Your task to perform on an android device: check battery use Image 0: 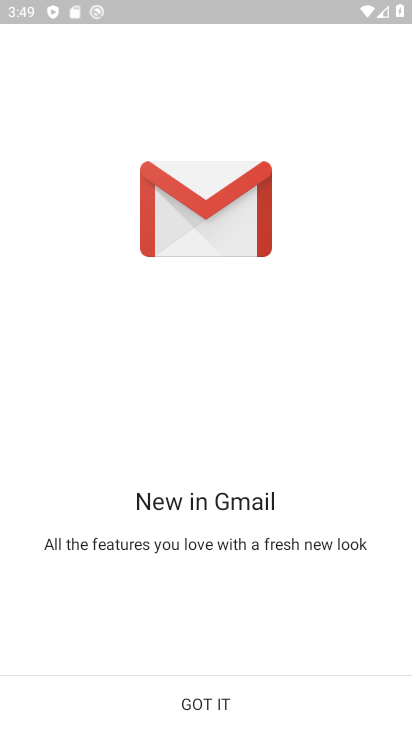
Step 0: press home button
Your task to perform on an android device: check battery use Image 1: 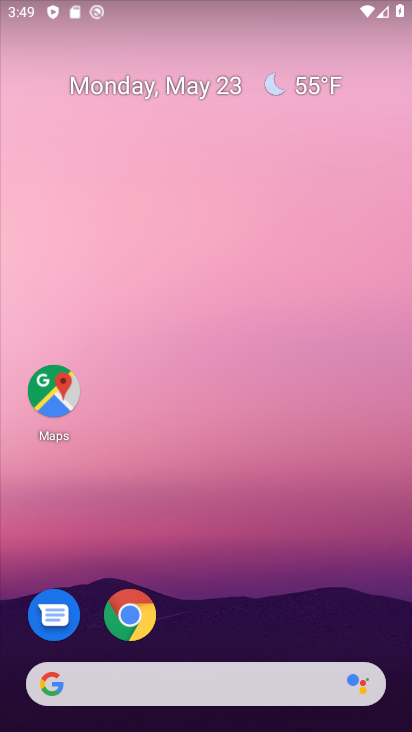
Step 1: drag from (322, 613) to (349, 266)
Your task to perform on an android device: check battery use Image 2: 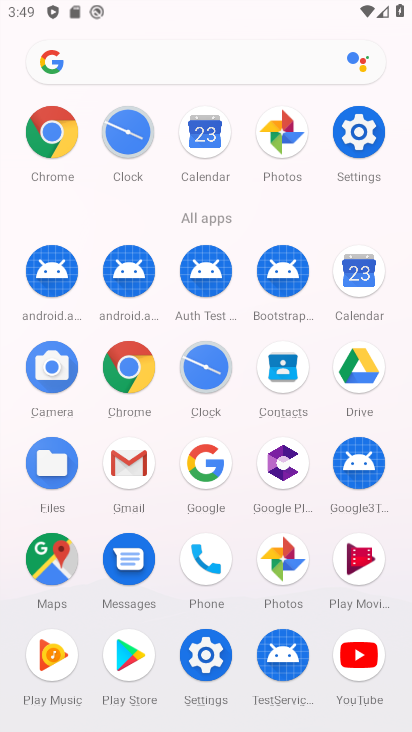
Step 2: click (359, 145)
Your task to perform on an android device: check battery use Image 3: 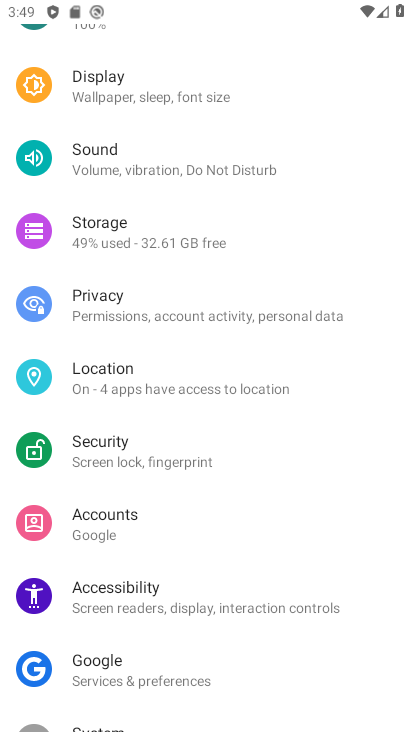
Step 3: drag from (365, 213) to (361, 359)
Your task to perform on an android device: check battery use Image 4: 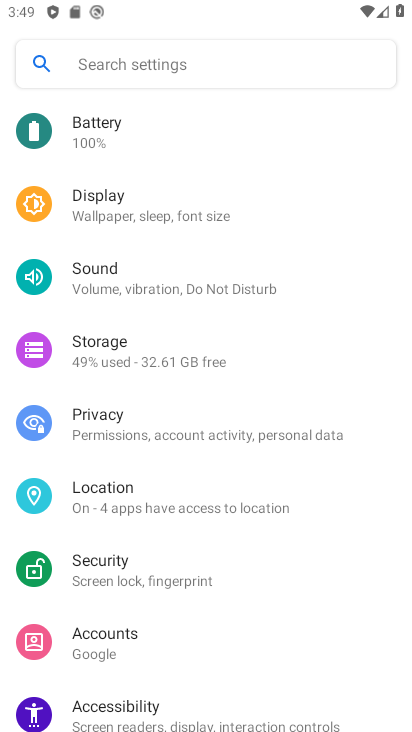
Step 4: drag from (356, 181) to (352, 353)
Your task to perform on an android device: check battery use Image 5: 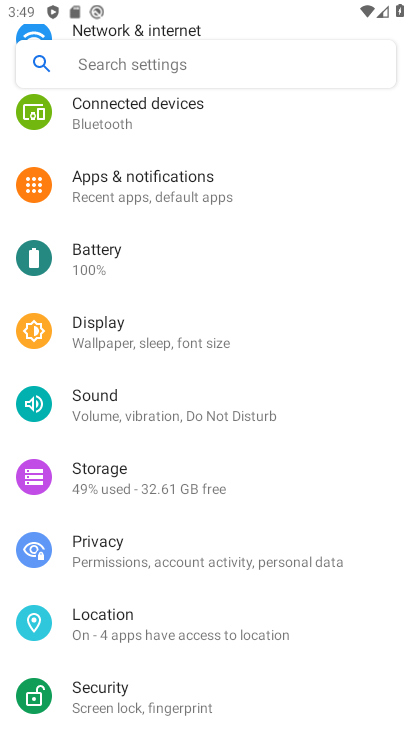
Step 5: drag from (353, 193) to (344, 365)
Your task to perform on an android device: check battery use Image 6: 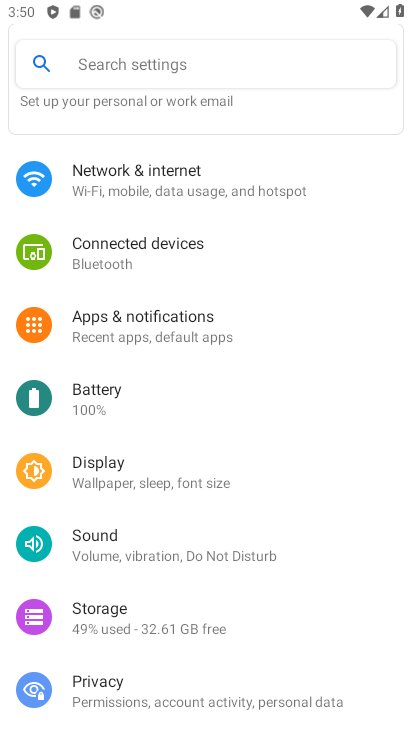
Step 6: drag from (345, 181) to (348, 379)
Your task to perform on an android device: check battery use Image 7: 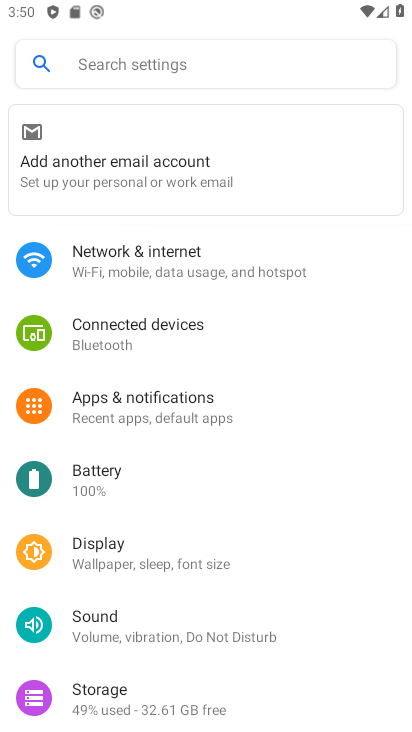
Step 7: drag from (348, 481) to (354, 345)
Your task to perform on an android device: check battery use Image 8: 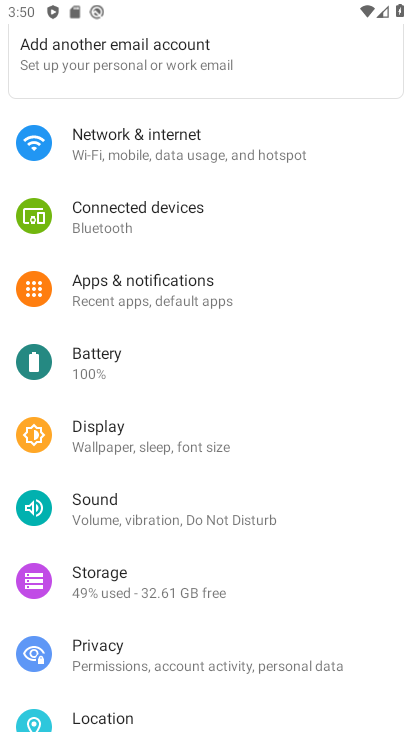
Step 8: drag from (352, 476) to (357, 356)
Your task to perform on an android device: check battery use Image 9: 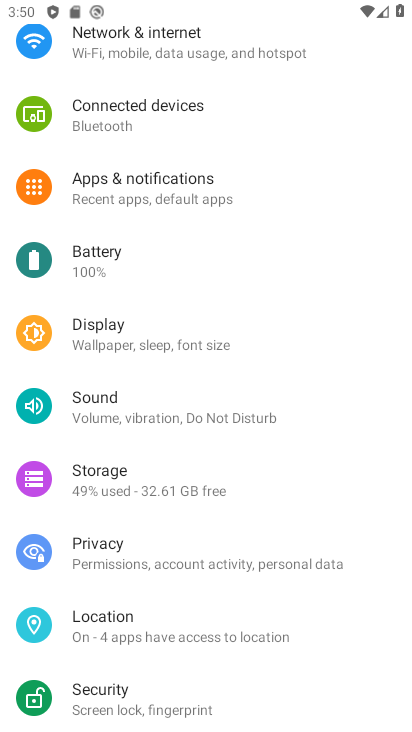
Step 9: drag from (353, 512) to (346, 398)
Your task to perform on an android device: check battery use Image 10: 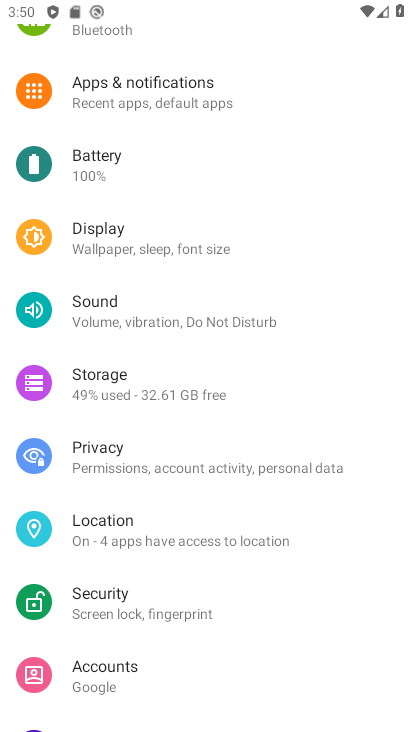
Step 10: drag from (350, 555) to (349, 420)
Your task to perform on an android device: check battery use Image 11: 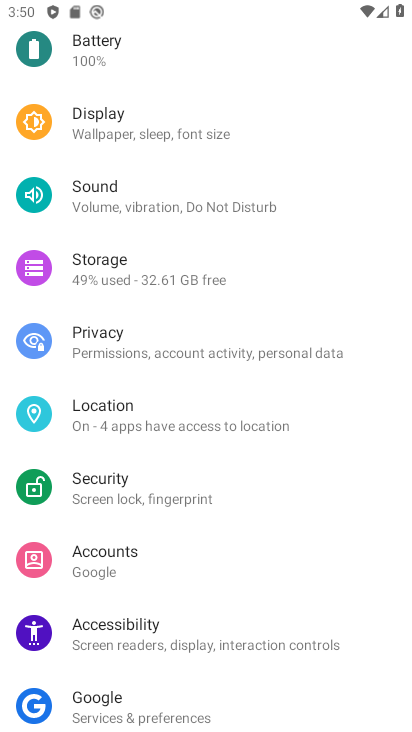
Step 11: drag from (348, 583) to (353, 419)
Your task to perform on an android device: check battery use Image 12: 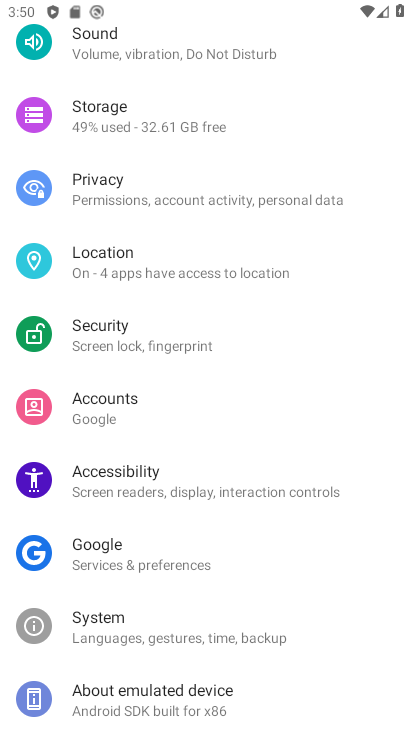
Step 12: drag from (355, 634) to (365, 472)
Your task to perform on an android device: check battery use Image 13: 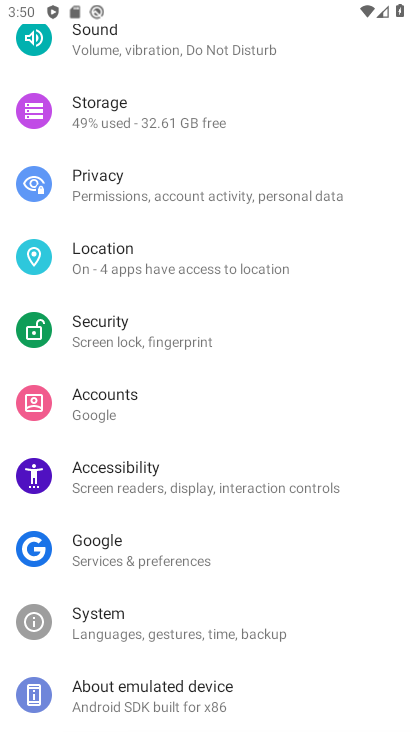
Step 13: drag from (351, 339) to (358, 469)
Your task to perform on an android device: check battery use Image 14: 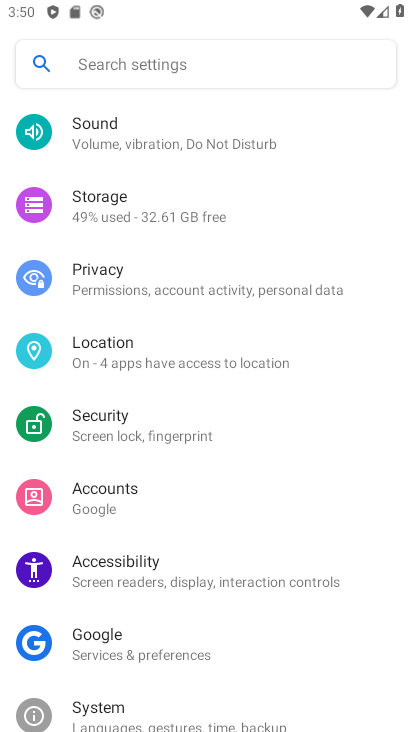
Step 14: drag from (369, 277) to (372, 417)
Your task to perform on an android device: check battery use Image 15: 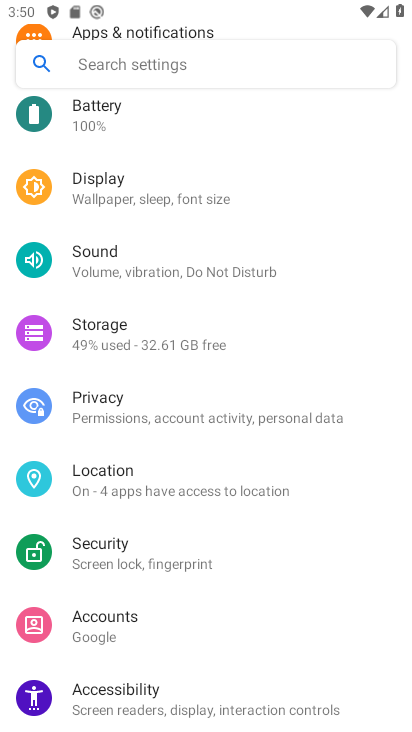
Step 15: drag from (358, 277) to (363, 431)
Your task to perform on an android device: check battery use Image 16: 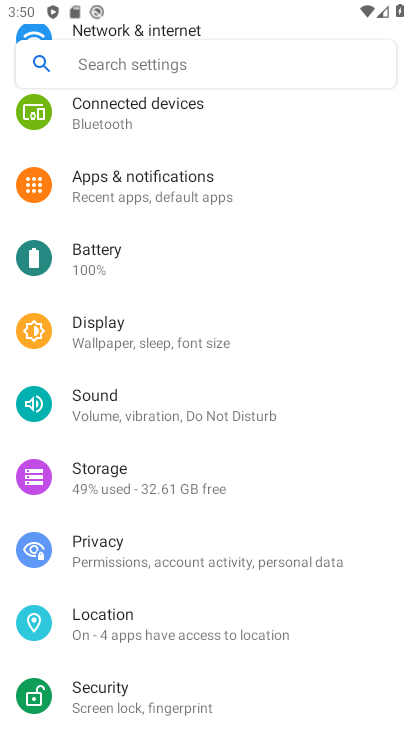
Step 16: drag from (353, 268) to (354, 423)
Your task to perform on an android device: check battery use Image 17: 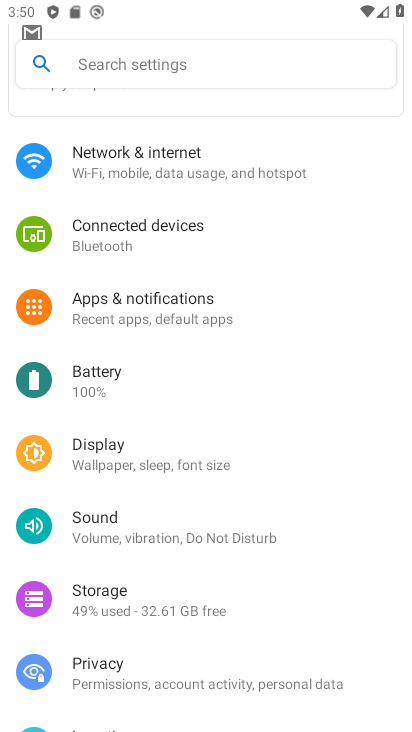
Step 17: click (155, 384)
Your task to perform on an android device: check battery use Image 18: 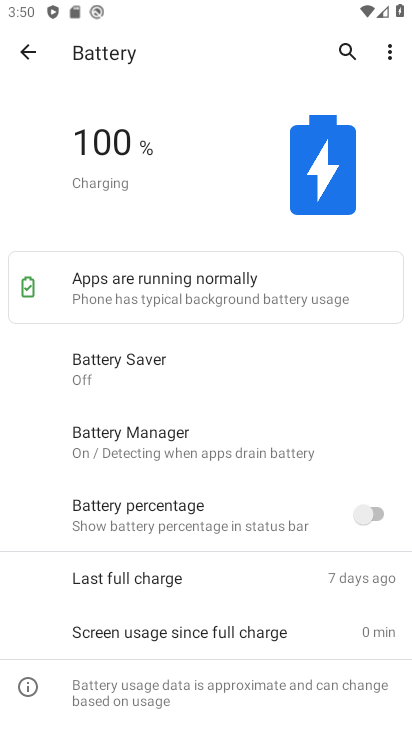
Step 18: click (393, 60)
Your task to perform on an android device: check battery use Image 19: 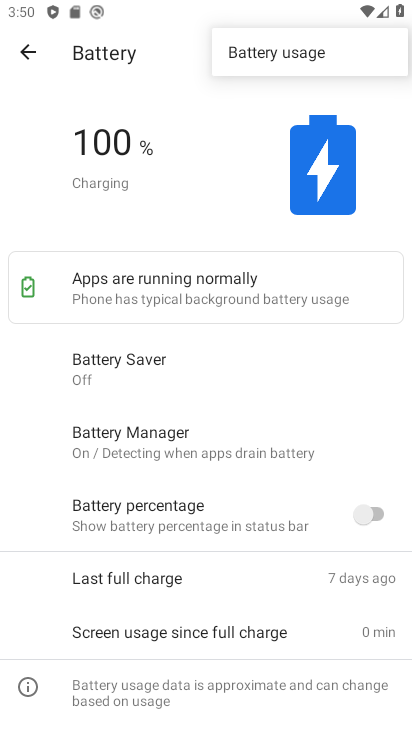
Step 19: click (302, 51)
Your task to perform on an android device: check battery use Image 20: 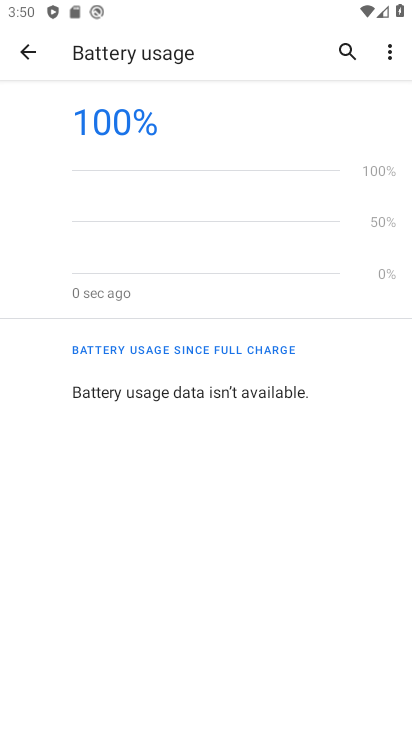
Step 20: task complete